Your task to perform on an android device: turn on sleep mode Image 0: 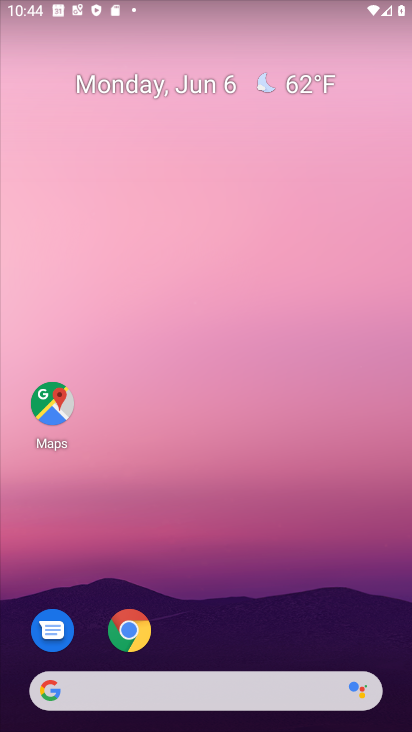
Step 0: drag from (340, 592) to (326, 230)
Your task to perform on an android device: turn on sleep mode Image 1: 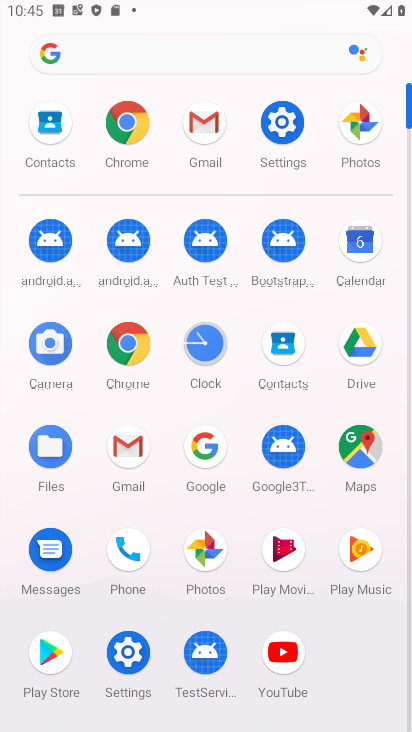
Step 1: click (279, 119)
Your task to perform on an android device: turn on sleep mode Image 2: 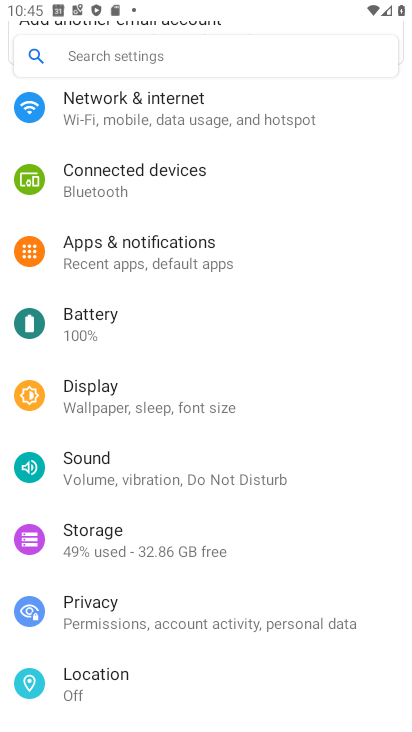
Step 2: click (224, 66)
Your task to perform on an android device: turn on sleep mode Image 3: 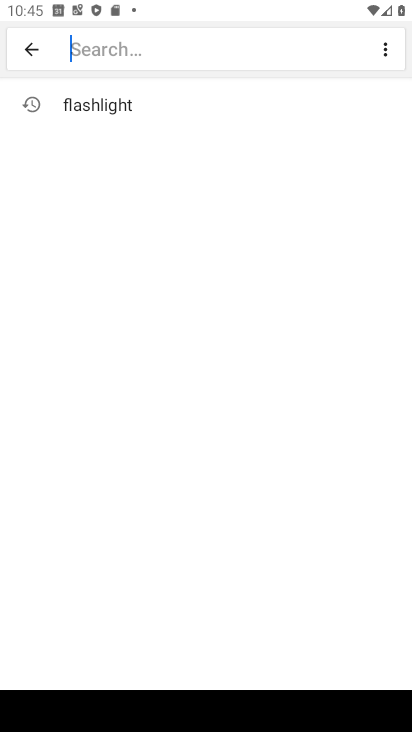
Step 3: type "sleep mode"
Your task to perform on an android device: turn on sleep mode Image 4: 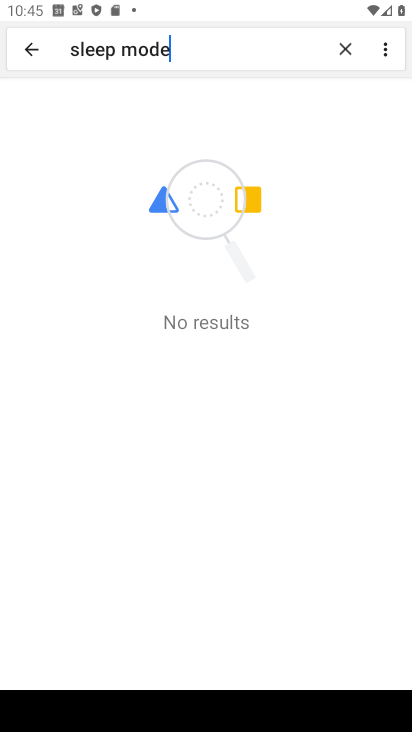
Step 4: task complete